Your task to perform on an android device: Empty the shopping cart on bestbuy.com. Search for "razer blackwidow" on bestbuy.com, select the first entry, add it to the cart, then select checkout. Image 0: 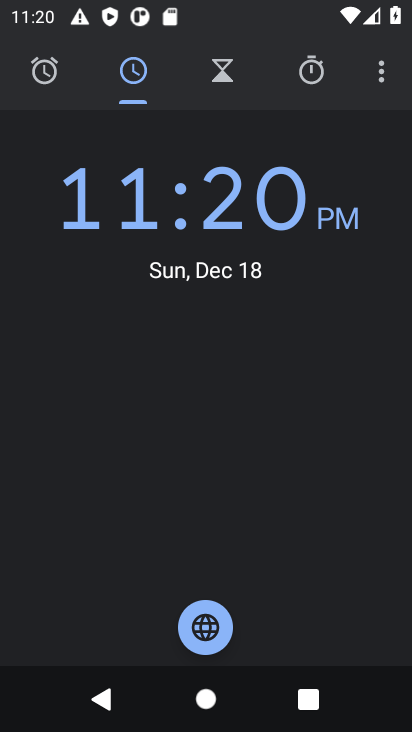
Step 0: press home button
Your task to perform on an android device: Empty the shopping cart on bestbuy.com. Search for "razer blackwidow" on bestbuy.com, select the first entry, add it to the cart, then select checkout. Image 1: 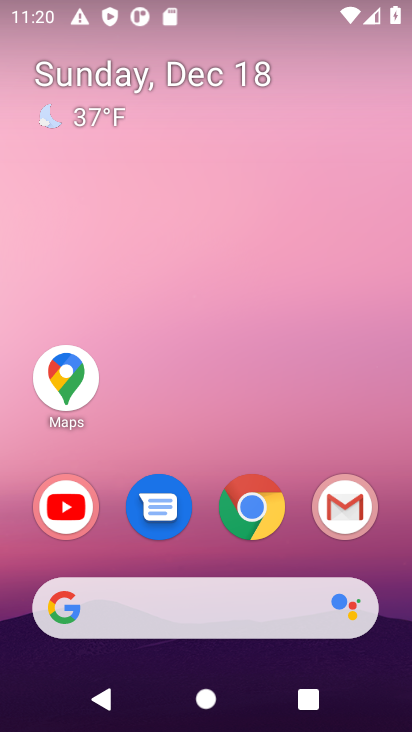
Step 1: click (251, 510)
Your task to perform on an android device: Empty the shopping cart on bestbuy.com. Search for "razer blackwidow" on bestbuy.com, select the first entry, add it to the cart, then select checkout. Image 2: 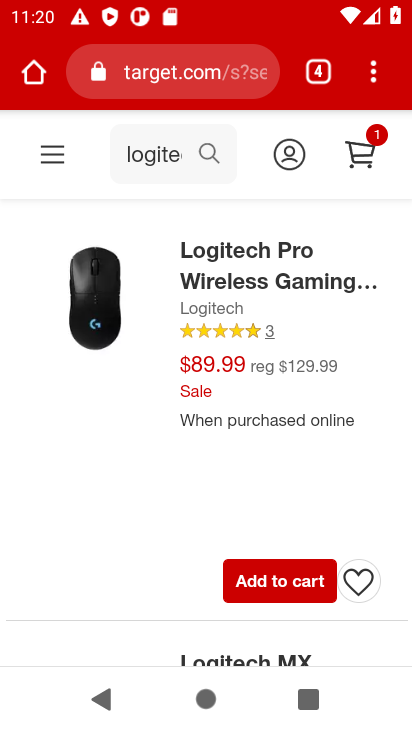
Step 2: click (153, 77)
Your task to perform on an android device: Empty the shopping cart on bestbuy.com. Search for "razer blackwidow" on bestbuy.com, select the first entry, add it to the cart, then select checkout. Image 3: 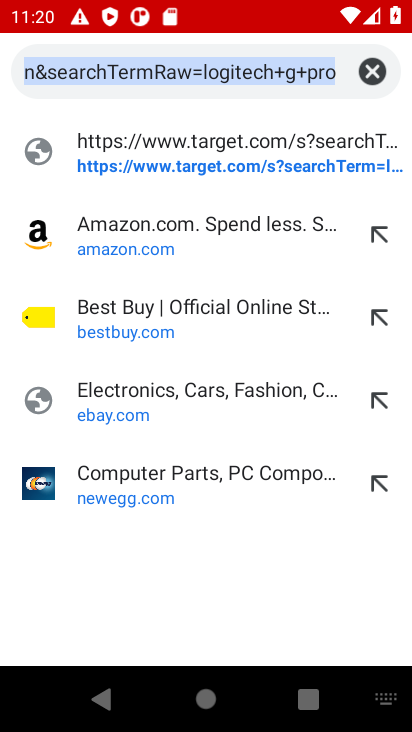
Step 3: click (93, 317)
Your task to perform on an android device: Empty the shopping cart on bestbuy.com. Search for "razer blackwidow" on bestbuy.com, select the first entry, add it to the cart, then select checkout. Image 4: 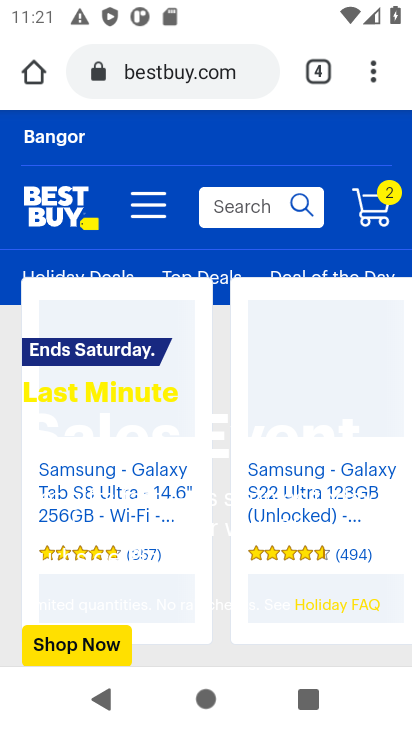
Step 4: click (366, 204)
Your task to perform on an android device: Empty the shopping cart on bestbuy.com. Search for "razer blackwidow" on bestbuy.com, select the first entry, add it to the cart, then select checkout. Image 5: 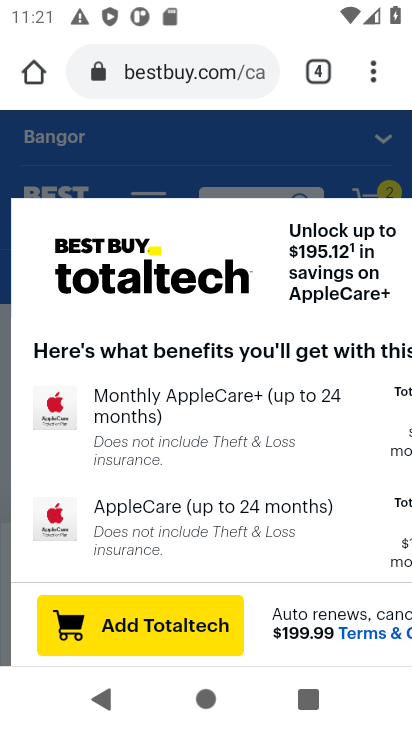
Step 5: click (195, 140)
Your task to perform on an android device: Empty the shopping cart on bestbuy.com. Search for "razer blackwidow" on bestbuy.com, select the first entry, add it to the cart, then select checkout. Image 6: 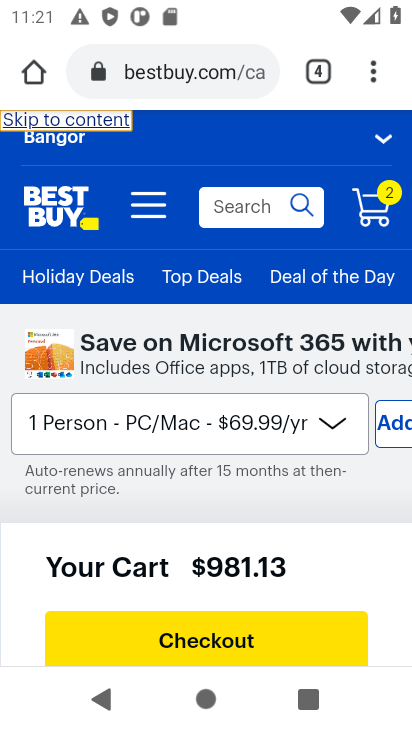
Step 6: drag from (176, 463) to (169, 101)
Your task to perform on an android device: Empty the shopping cart on bestbuy.com. Search for "razer blackwidow" on bestbuy.com, select the first entry, add it to the cart, then select checkout. Image 7: 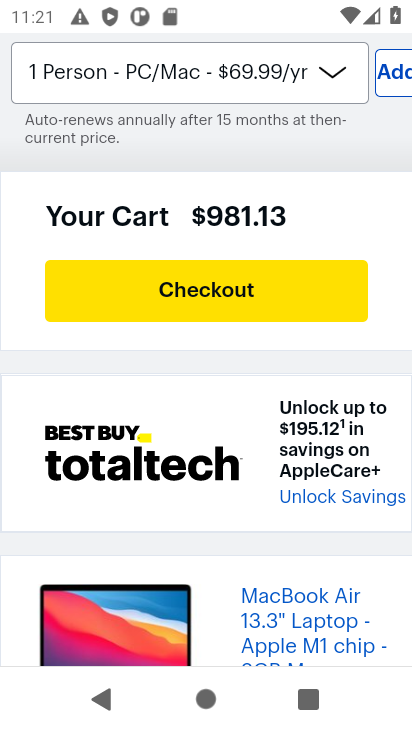
Step 7: drag from (166, 429) to (150, 65)
Your task to perform on an android device: Empty the shopping cart on bestbuy.com. Search for "razer blackwidow" on bestbuy.com, select the first entry, add it to the cart, then select checkout. Image 8: 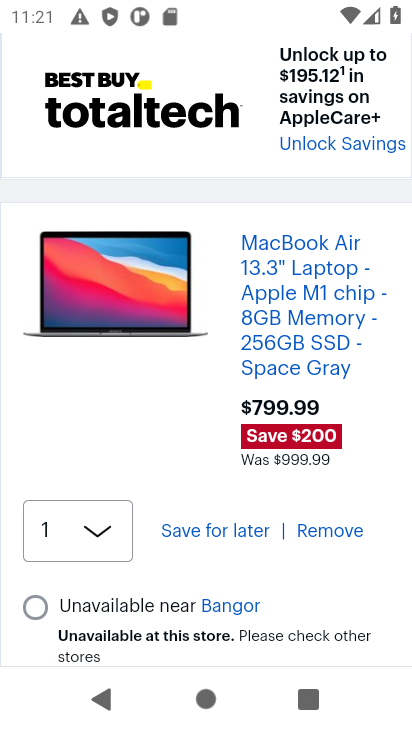
Step 8: click (318, 526)
Your task to perform on an android device: Empty the shopping cart on bestbuy.com. Search for "razer blackwidow" on bestbuy.com, select the first entry, add it to the cart, then select checkout. Image 9: 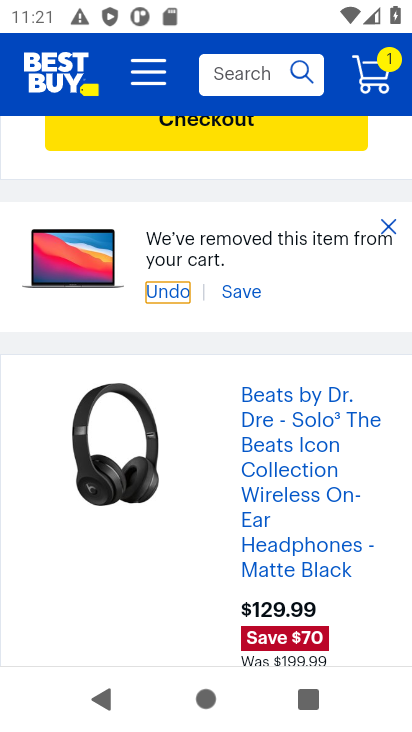
Step 9: drag from (184, 398) to (176, 159)
Your task to perform on an android device: Empty the shopping cart on bestbuy.com. Search for "razer blackwidow" on bestbuy.com, select the first entry, add it to the cart, then select checkout. Image 10: 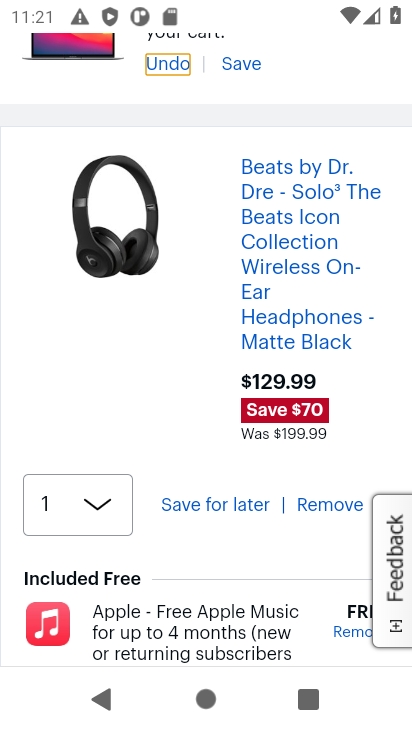
Step 10: click (332, 508)
Your task to perform on an android device: Empty the shopping cart on bestbuy.com. Search for "razer blackwidow" on bestbuy.com, select the first entry, add it to the cart, then select checkout. Image 11: 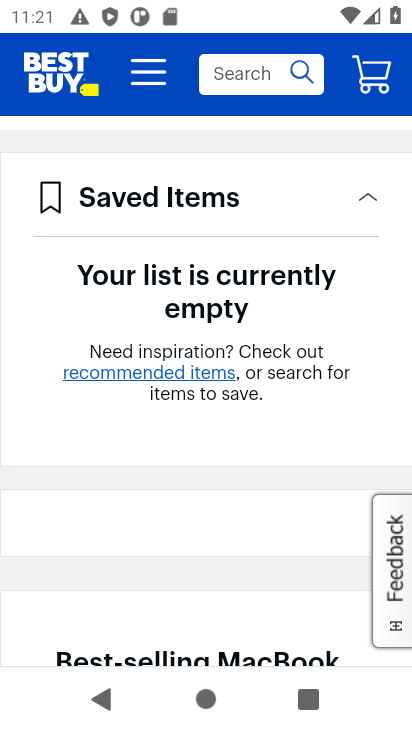
Step 11: click (252, 70)
Your task to perform on an android device: Empty the shopping cart on bestbuy.com. Search for "razer blackwidow" on bestbuy.com, select the first entry, add it to the cart, then select checkout. Image 12: 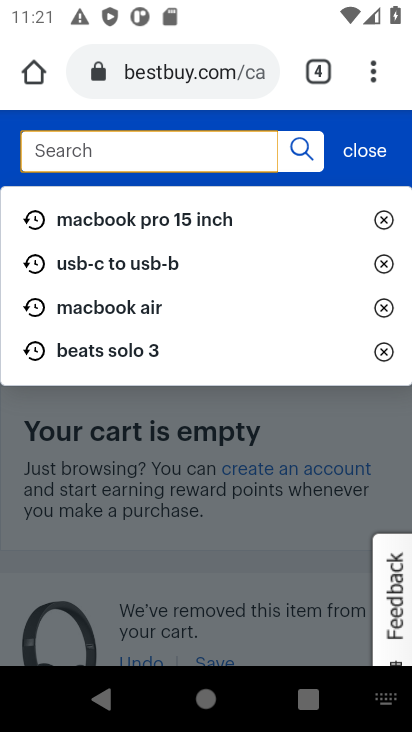
Step 12: type "razer blackwidow"
Your task to perform on an android device: Empty the shopping cart on bestbuy.com. Search for "razer blackwidow" on bestbuy.com, select the first entry, add it to the cart, then select checkout. Image 13: 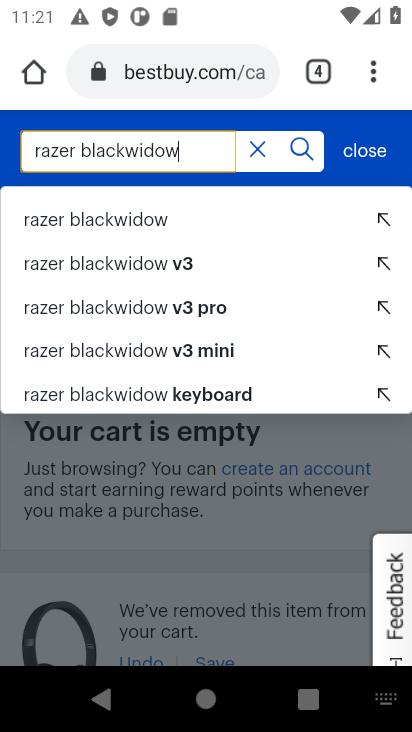
Step 13: click (124, 220)
Your task to perform on an android device: Empty the shopping cart on bestbuy.com. Search for "razer blackwidow" on bestbuy.com, select the first entry, add it to the cart, then select checkout. Image 14: 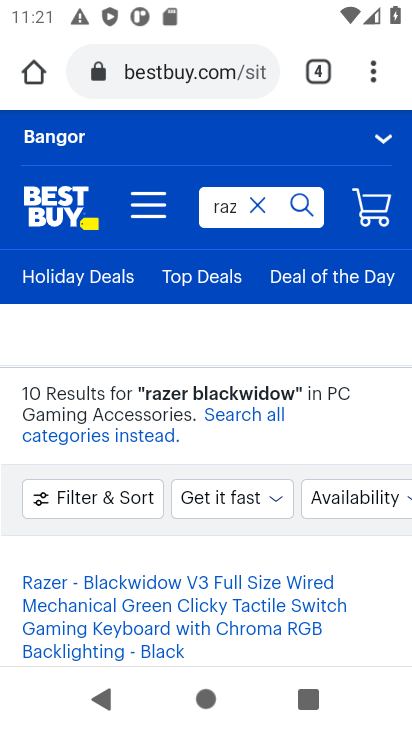
Step 14: drag from (72, 577) to (64, 266)
Your task to perform on an android device: Empty the shopping cart on bestbuy.com. Search for "razer blackwidow" on bestbuy.com, select the first entry, add it to the cart, then select checkout. Image 15: 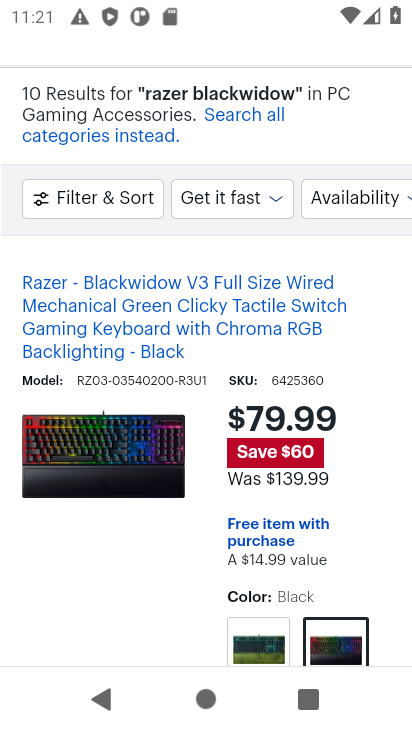
Step 15: drag from (168, 412) to (144, 232)
Your task to perform on an android device: Empty the shopping cart on bestbuy.com. Search for "razer blackwidow" on bestbuy.com, select the first entry, add it to the cart, then select checkout. Image 16: 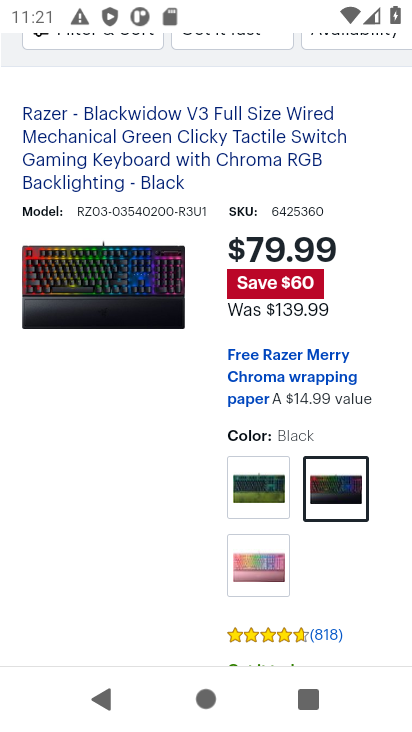
Step 16: drag from (210, 390) to (210, 232)
Your task to perform on an android device: Empty the shopping cart on bestbuy.com. Search for "razer blackwidow" on bestbuy.com, select the first entry, add it to the cart, then select checkout. Image 17: 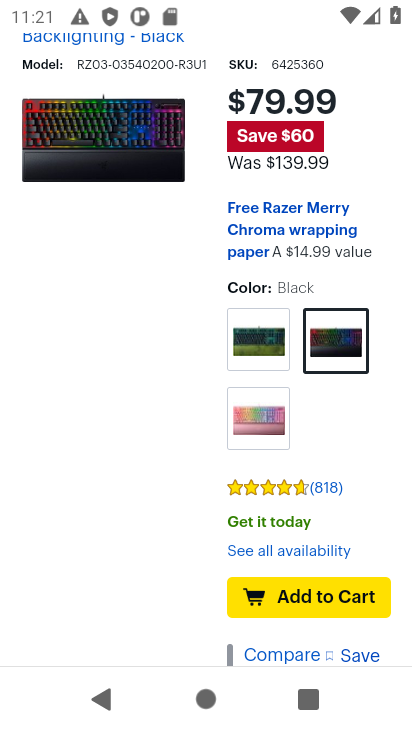
Step 17: click (301, 588)
Your task to perform on an android device: Empty the shopping cart on bestbuy.com. Search for "razer blackwidow" on bestbuy.com, select the first entry, add it to the cart, then select checkout. Image 18: 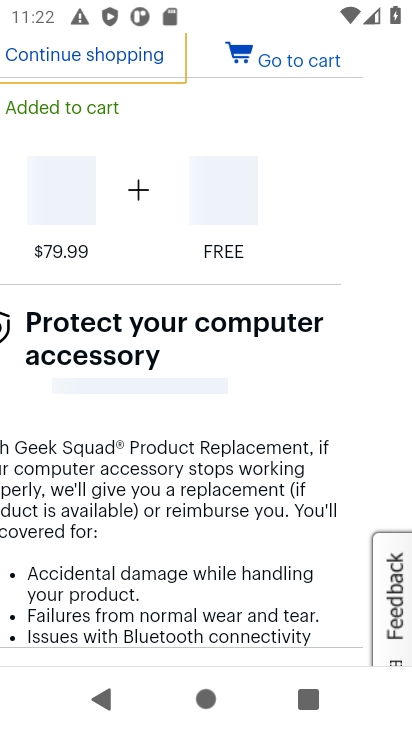
Step 18: click (295, 67)
Your task to perform on an android device: Empty the shopping cart on bestbuy.com. Search for "razer blackwidow" on bestbuy.com, select the first entry, add it to the cart, then select checkout. Image 19: 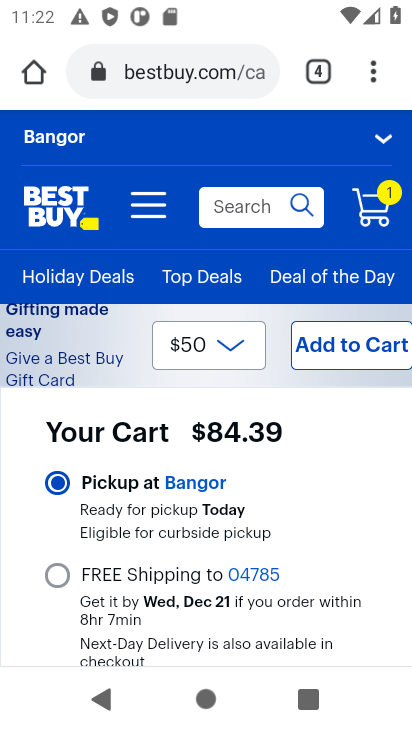
Step 19: drag from (187, 486) to (199, 144)
Your task to perform on an android device: Empty the shopping cart on bestbuy.com. Search for "razer blackwidow" on bestbuy.com, select the first entry, add it to the cart, then select checkout. Image 20: 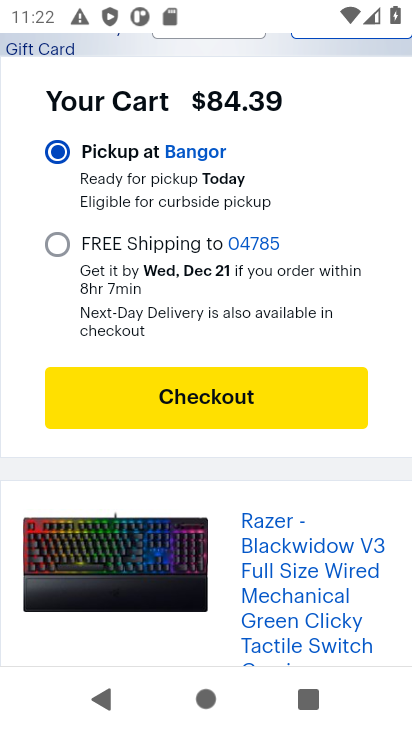
Step 20: click (180, 392)
Your task to perform on an android device: Empty the shopping cart on bestbuy.com. Search for "razer blackwidow" on bestbuy.com, select the first entry, add it to the cart, then select checkout. Image 21: 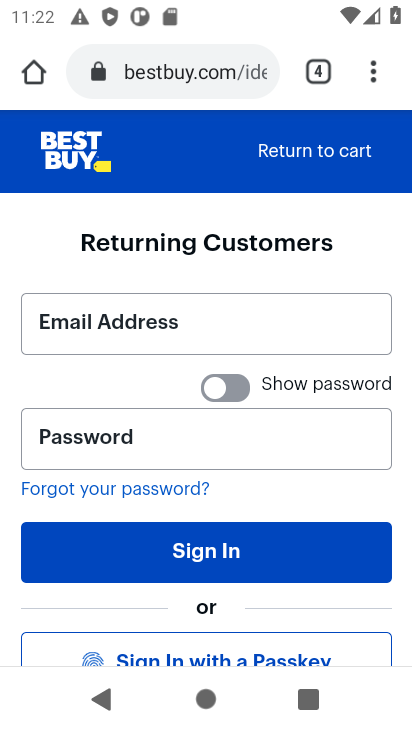
Step 21: task complete